Your task to perform on an android device: Go to Wikipedia Image 0: 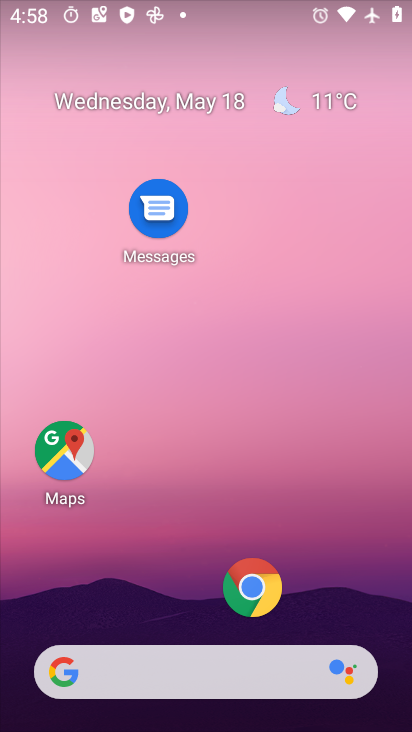
Step 0: click (255, 225)
Your task to perform on an android device: Go to Wikipedia Image 1: 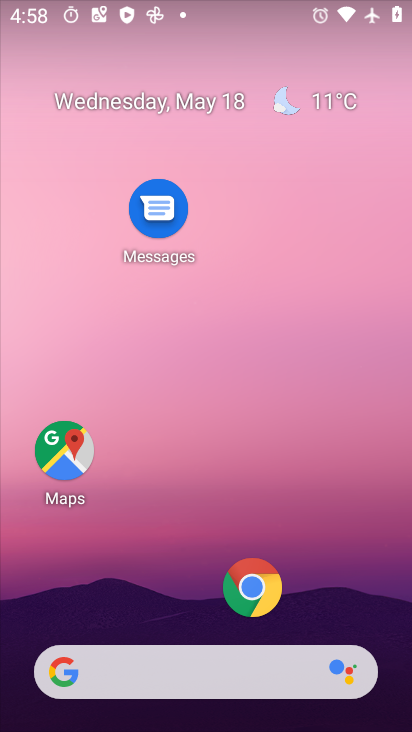
Step 1: click (253, 602)
Your task to perform on an android device: Go to Wikipedia Image 2: 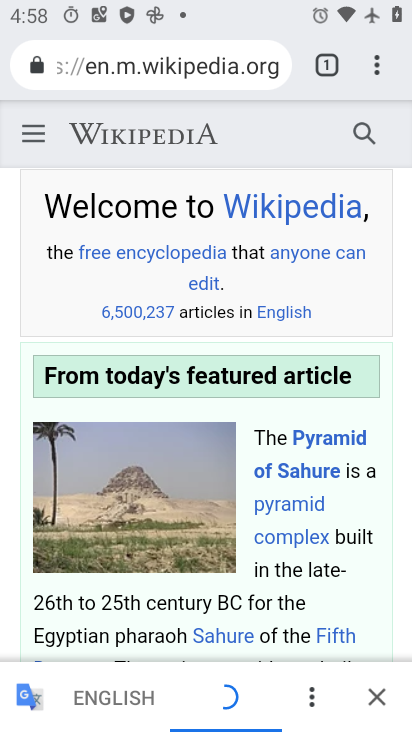
Step 2: task complete